Your task to perform on an android device: change text size in settings app Image 0: 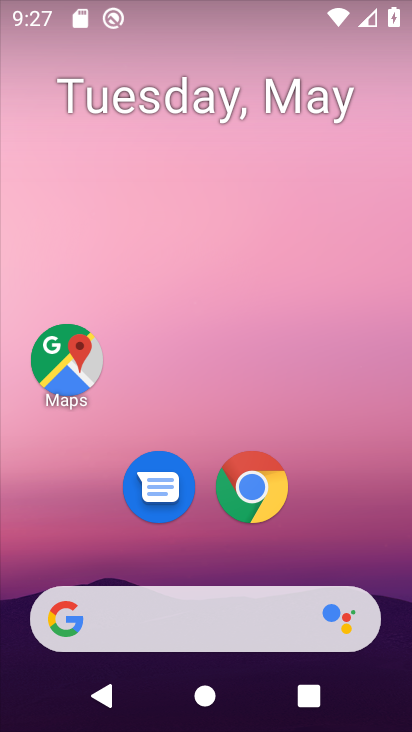
Step 0: press home button
Your task to perform on an android device: change text size in settings app Image 1: 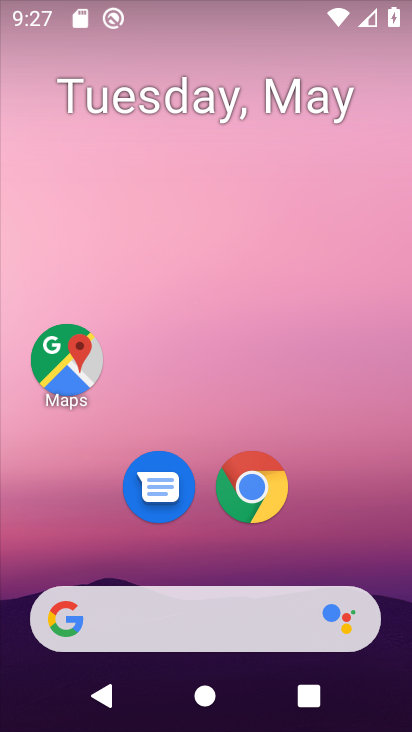
Step 1: drag from (142, 623) to (291, 124)
Your task to perform on an android device: change text size in settings app Image 2: 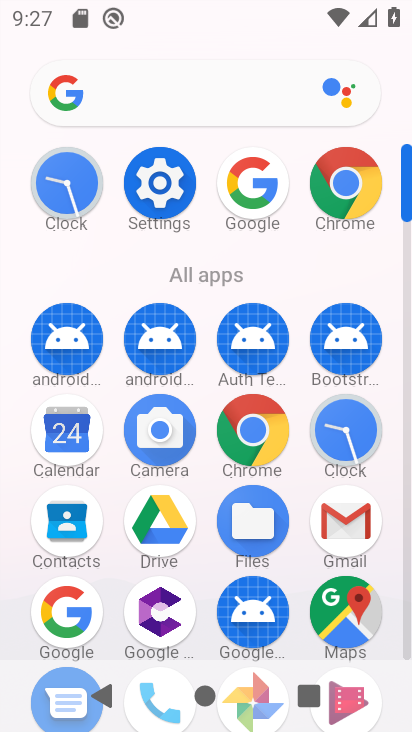
Step 2: click (175, 196)
Your task to perform on an android device: change text size in settings app Image 3: 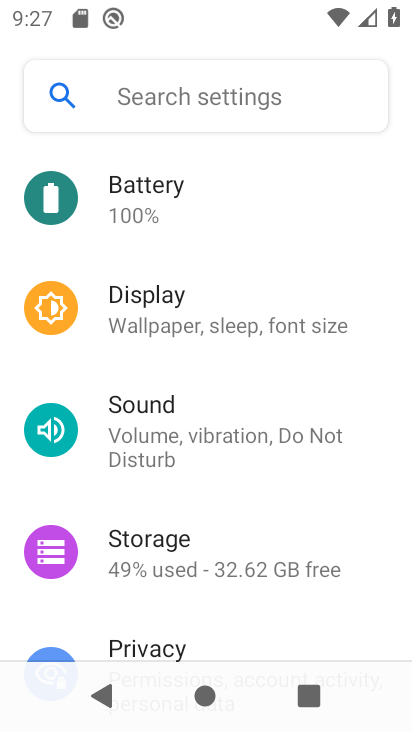
Step 3: drag from (266, 610) to (303, 129)
Your task to perform on an android device: change text size in settings app Image 4: 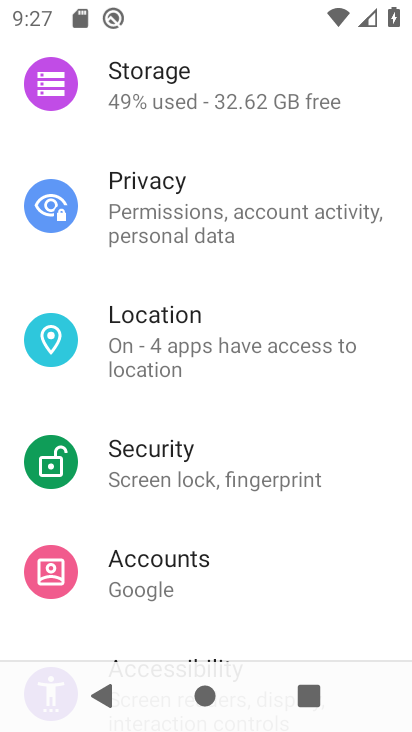
Step 4: drag from (245, 566) to (239, 620)
Your task to perform on an android device: change text size in settings app Image 5: 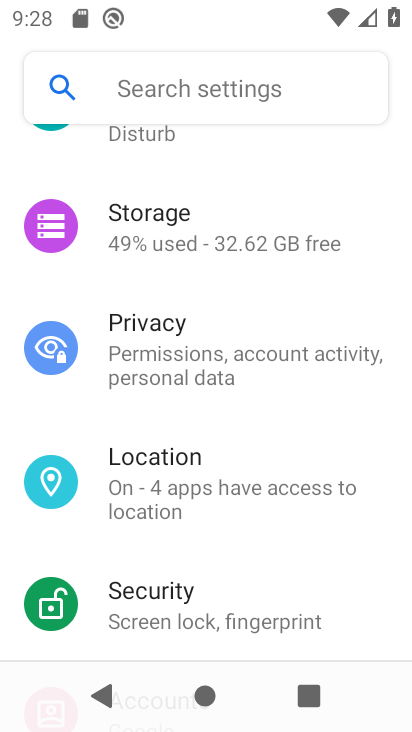
Step 5: drag from (321, 191) to (256, 557)
Your task to perform on an android device: change text size in settings app Image 6: 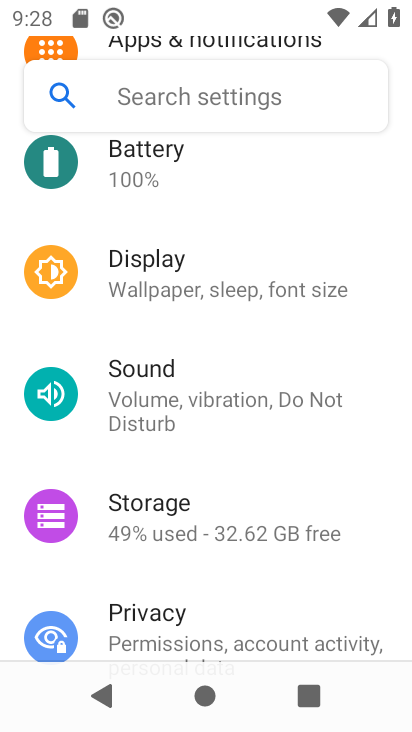
Step 6: click (234, 286)
Your task to perform on an android device: change text size in settings app Image 7: 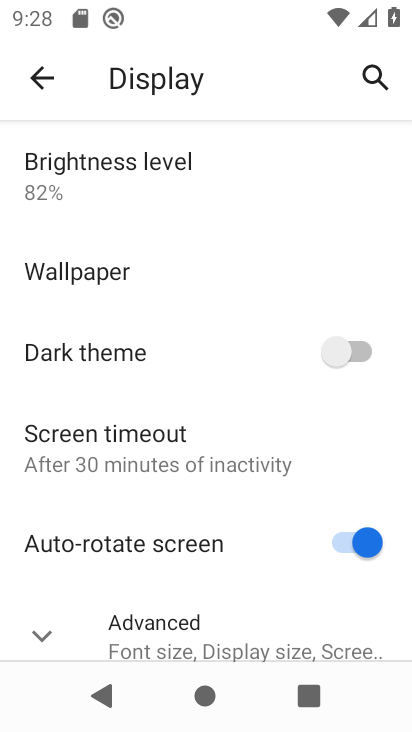
Step 7: drag from (150, 580) to (296, 207)
Your task to perform on an android device: change text size in settings app Image 8: 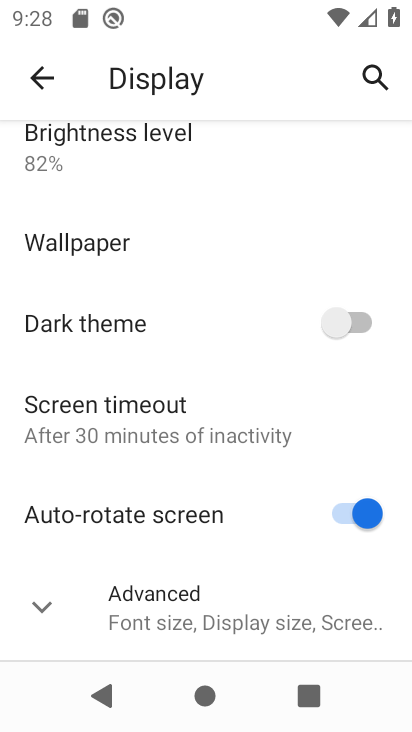
Step 8: click (164, 615)
Your task to perform on an android device: change text size in settings app Image 9: 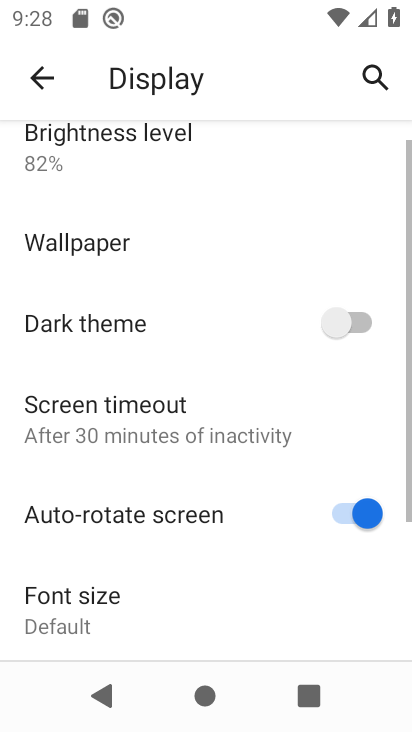
Step 9: drag from (215, 591) to (303, 260)
Your task to perform on an android device: change text size in settings app Image 10: 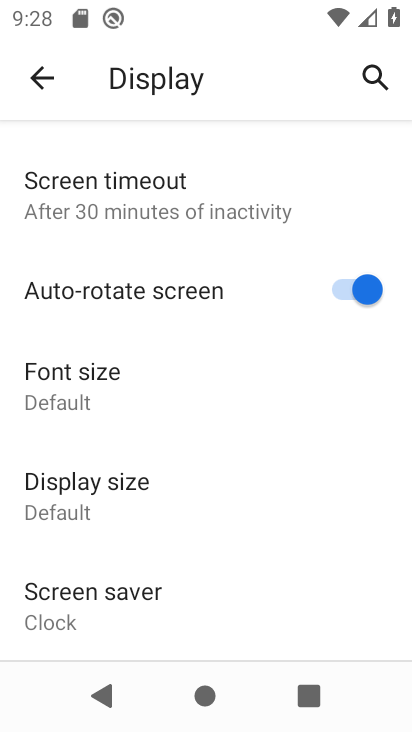
Step 10: click (93, 373)
Your task to perform on an android device: change text size in settings app Image 11: 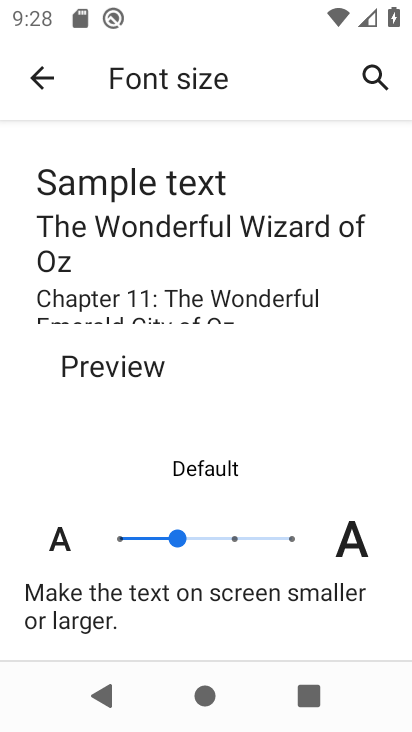
Step 11: click (111, 540)
Your task to perform on an android device: change text size in settings app Image 12: 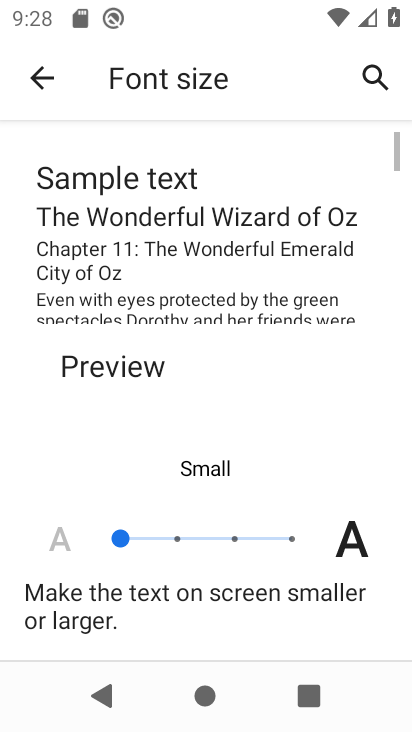
Step 12: click (120, 541)
Your task to perform on an android device: change text size in settings app Image 13: 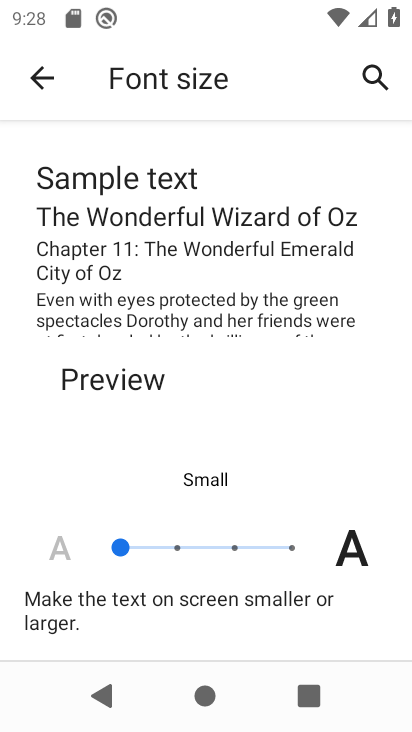
Step 13: task complete